Your task to perform on an android device: Open CNN.com Image 0: 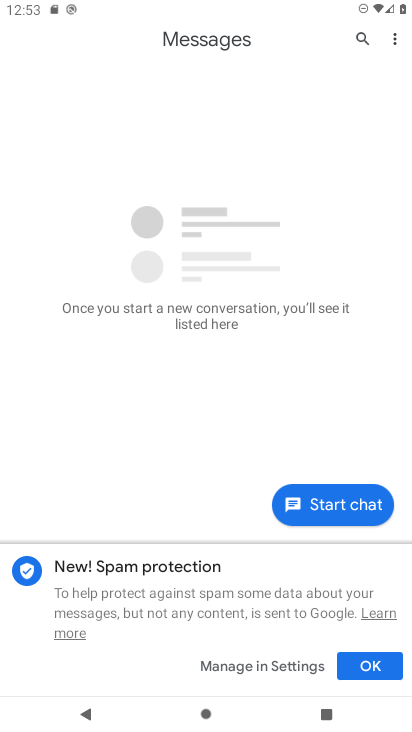
Step 0: press home button
Your task to perform on an android device: Open CNN.com Image 1: 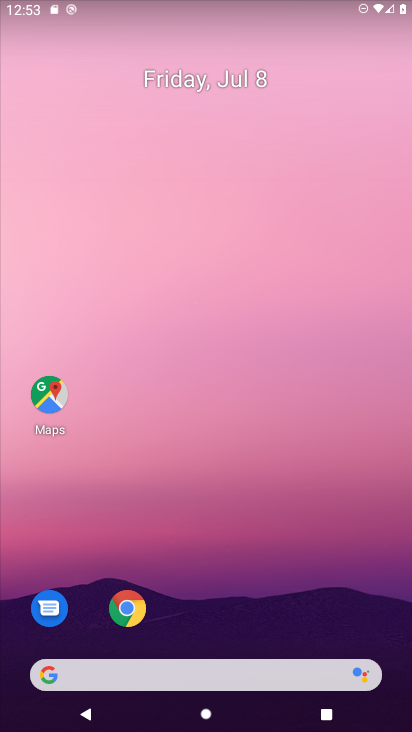
Step 1: drag from (260, 599) to (193, 3)
Your task to perform on an android device: Open CNN.com Image 2: 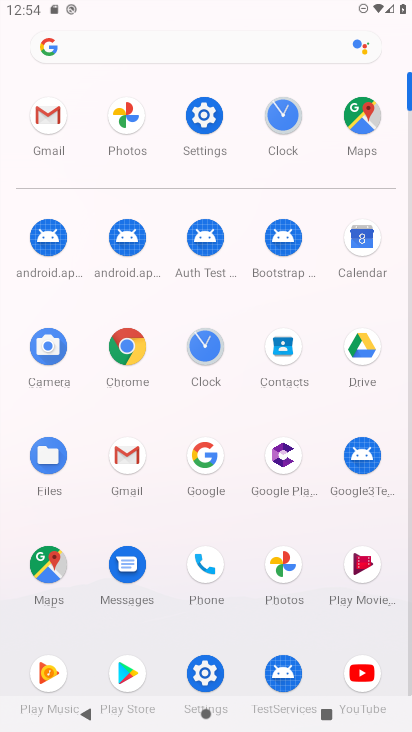
Step 2: click (141, 354)
Your task to perform on an android device: Open CNN.com Image 3: 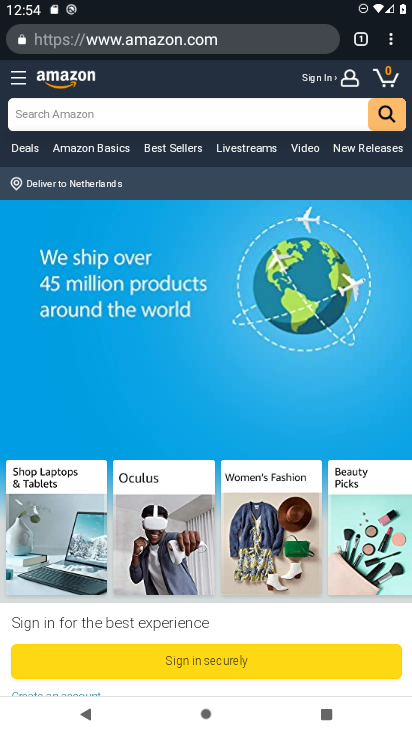
Step 3: click (191, 122)
Your task to perform on an android device: Open CNN.com Image 4: 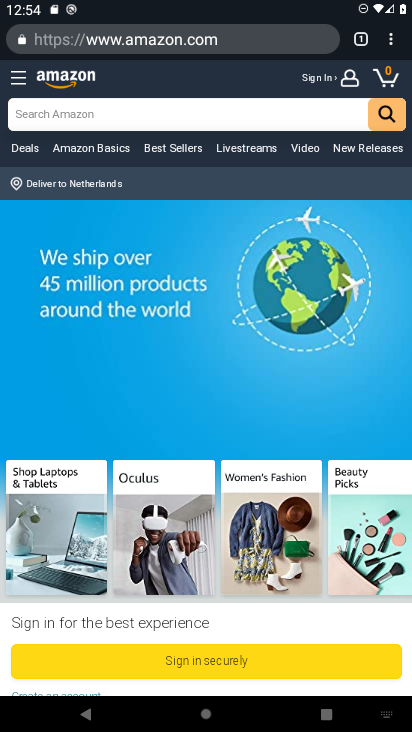
Step 4: click (216, 50)
Your task to perform on an android device: Open CNN.com Image 5: 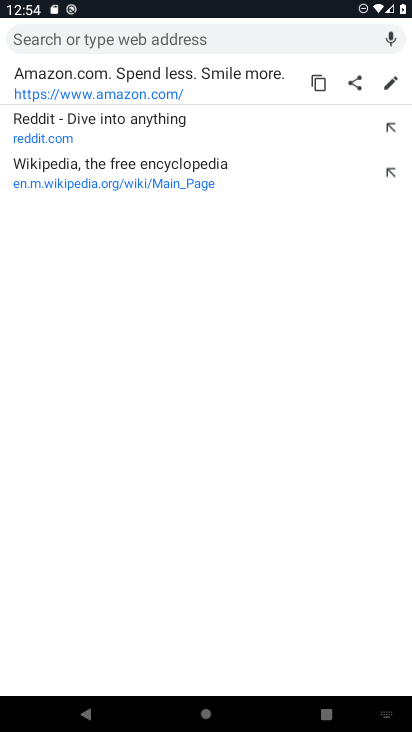
Step 5: type "cnn.com"
Your task to perform on an android device: Open CNN.com Image 6: 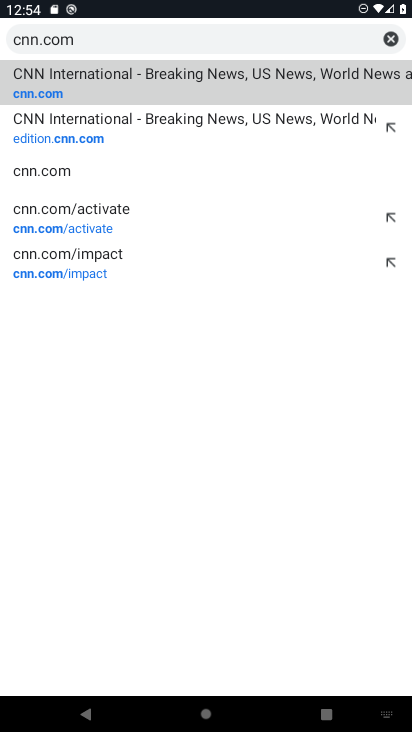
Step 6: click (160, 123)
Your task to perform on an android device: Open CNN.com Image 7: 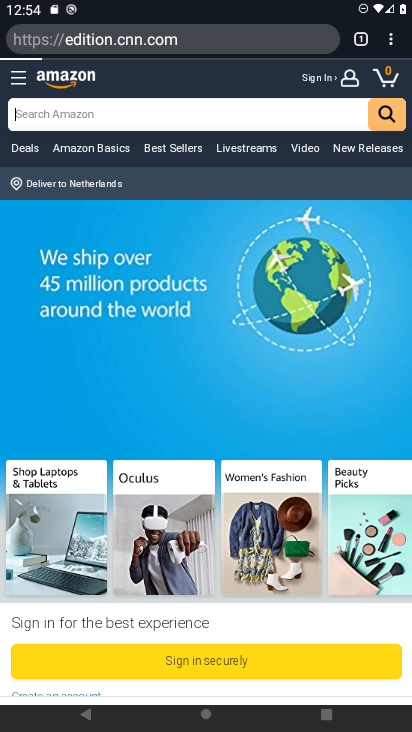
Step 7: task complete